Your task to perform on an android device: toggle pop-ups in chrome Image 0: 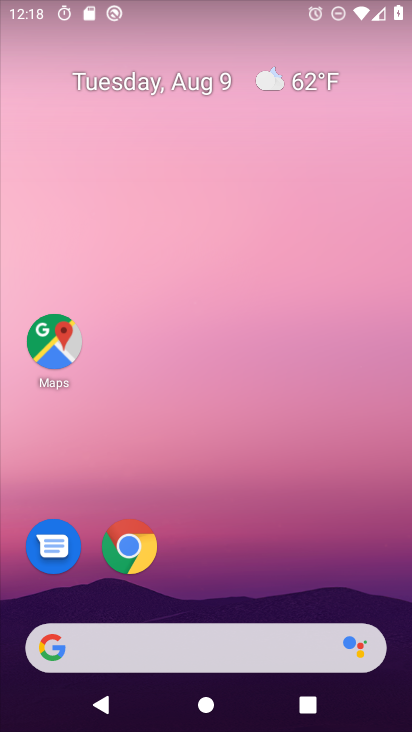
Step 0: press home button
Your task to perform on an android device: toggle pop-ups in chrome Image 1: 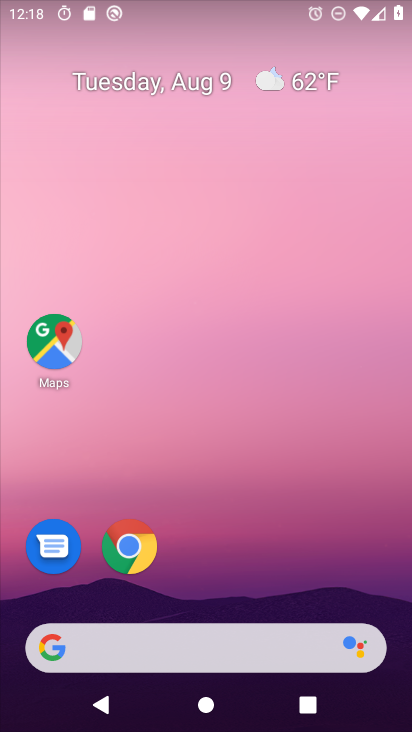
Step 1: drag from (217, 592) to (203, 39)
Your task to perform on an android device: toggle pop-ups in chrome Image 2: 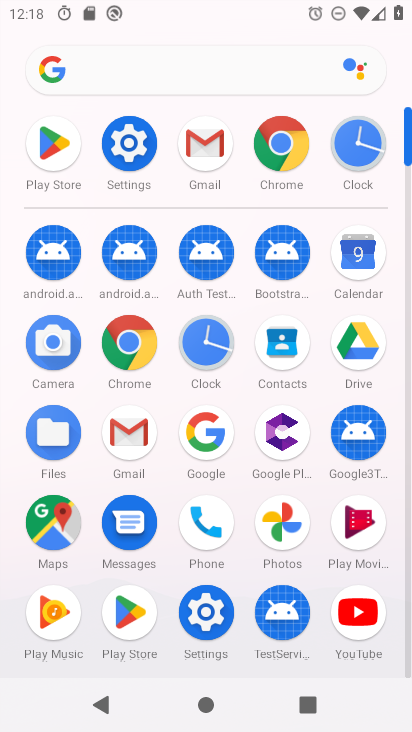
Step 2: click (277, 136)
Your task to perform on an android device: toggle pop-ups in chrome Image 3: 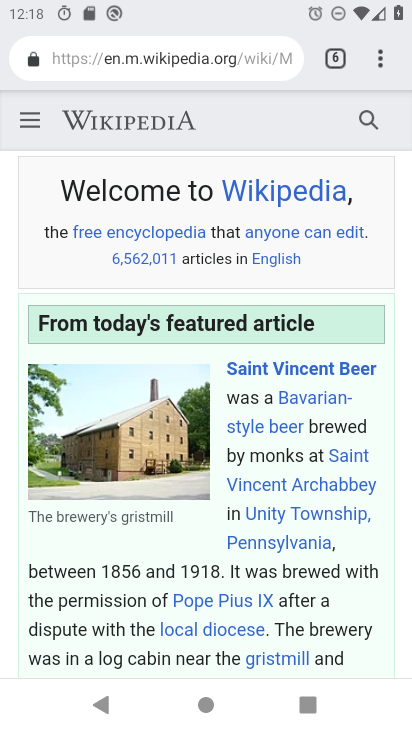
Step 3: click (380, 58)
Your task to perform on an android device: toggle pop-ups in chrome Image 4: 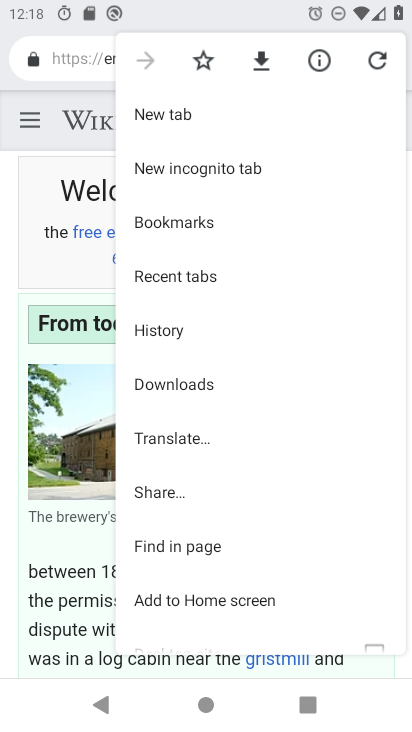
Step 4: drag from (274, 591) to (301, 93)
Your task to perform on an android device: toggle pop-ups in chrome Image 5: 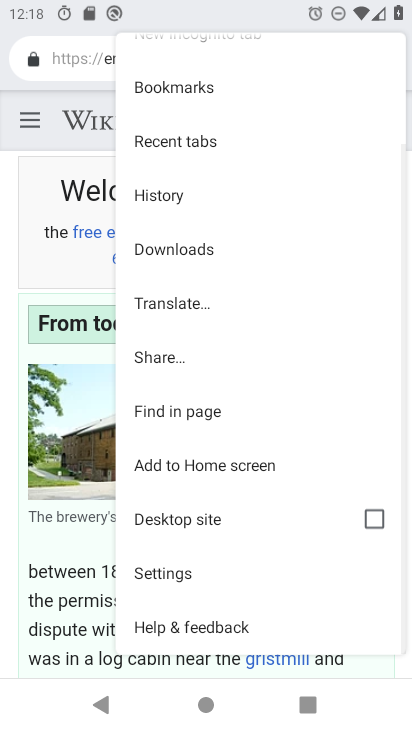
Step 5: click (210, 576)
Your task to perform on an android device: toggle pop-ups in chrome Image 6: 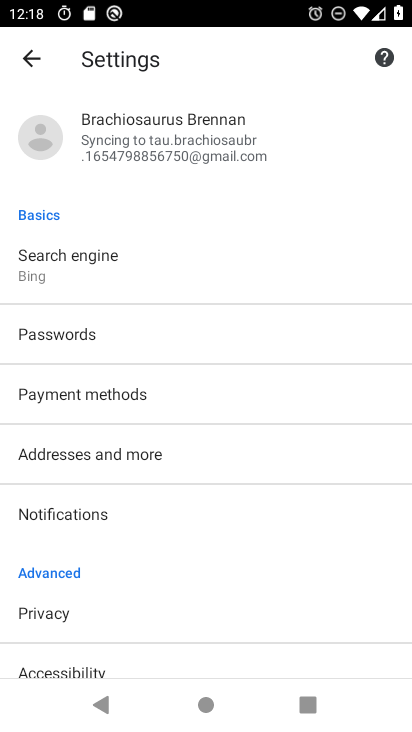
Step 6: drag from (181, 642) to (210, 9)
Your task to perform on an android device: toggle pop-ups in chrome Image 7: 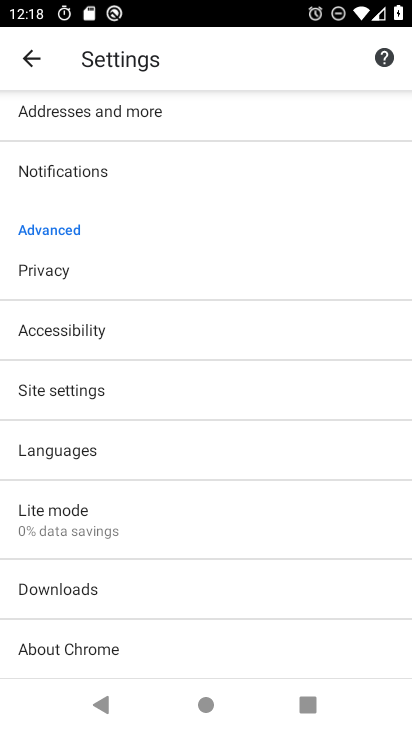
Step 7: click (118, 398)
Your task to perform on an android device: toggle pop-ups in chrome Image 8: 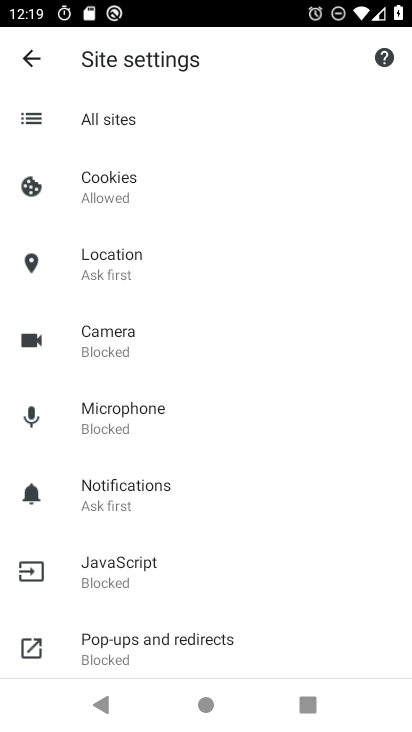
Step 8: click (190, 648)
Your task to perform on an android device: toggle pop-ups in chrome Image 9: 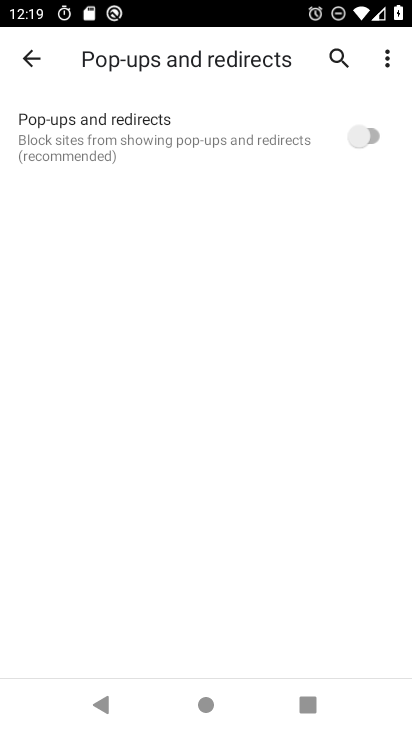
Step 9: click (370, 136)
Your task to perform on an android device: toggle pop-ups in chrome Image 10: 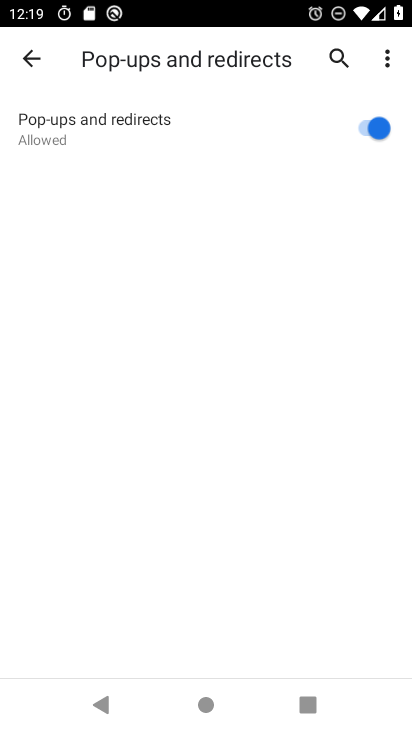
Step 10: task complete